Your task to perform on an android device: Open accessibility settings Image 0: 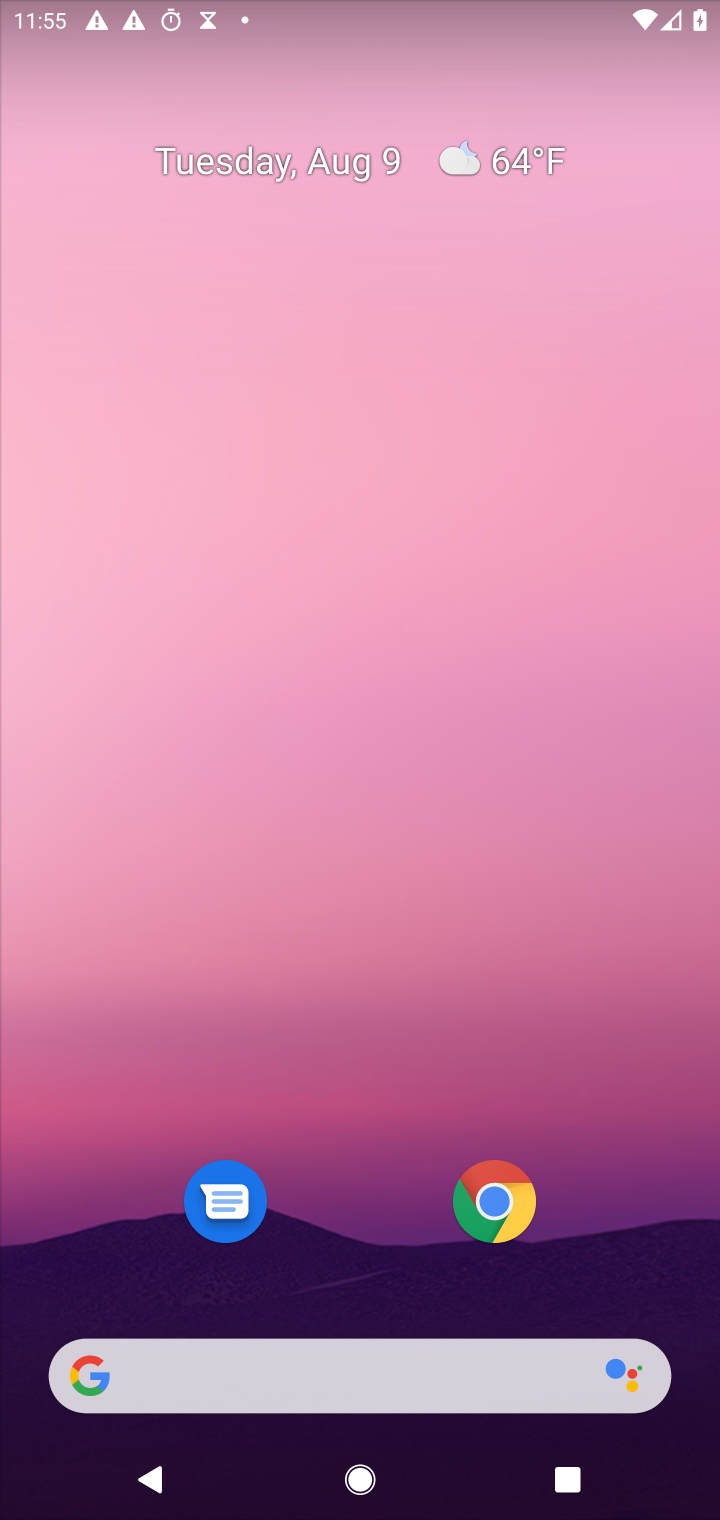
Step 0: press home button
Your task to perform on an android device: Open accessibility settings Image 1: 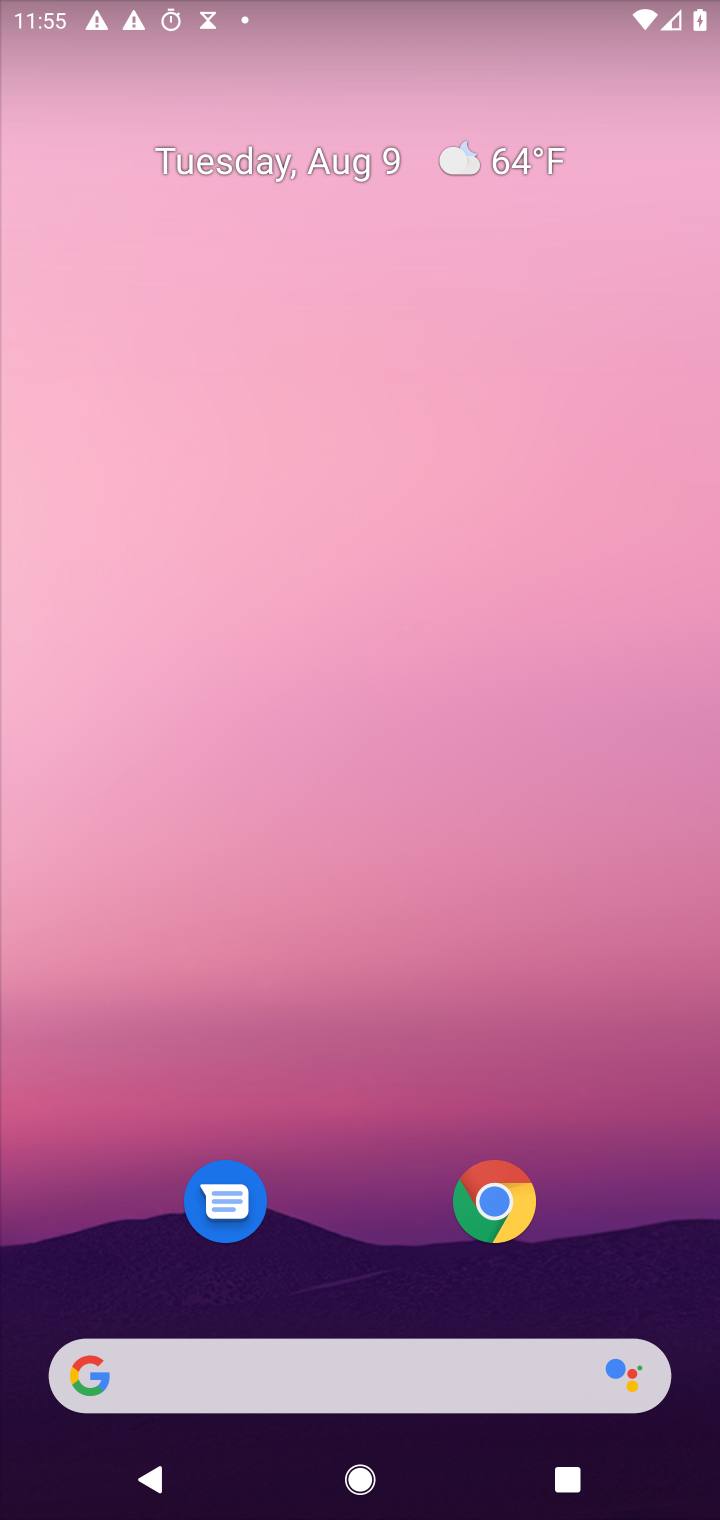
Step 1: drag from (342, 1241) to (331, 54)
Your task to perform on an android device: Open accessibility settings Image 2: 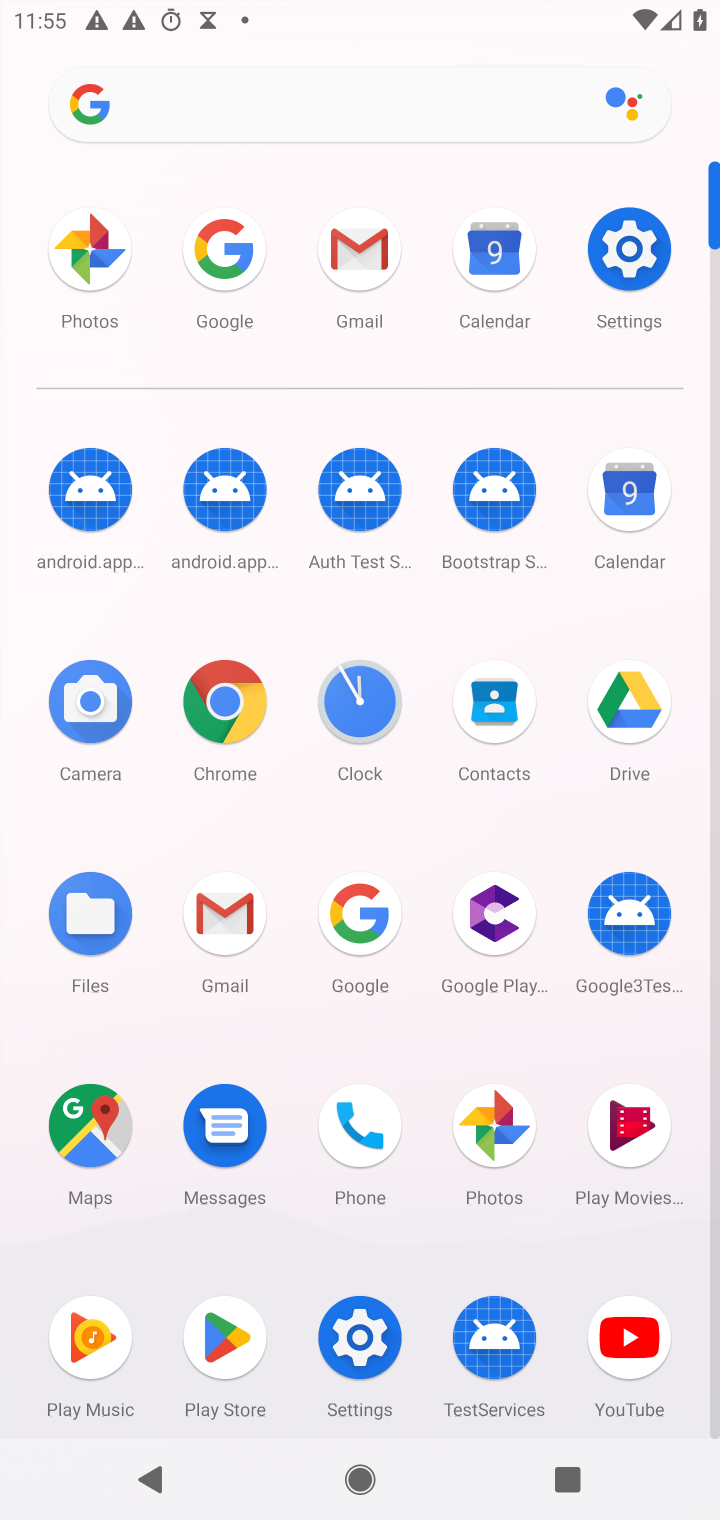
Step 2: click (631, 258)
Your task to perform on an android device: Open accessibility settings Image 3: 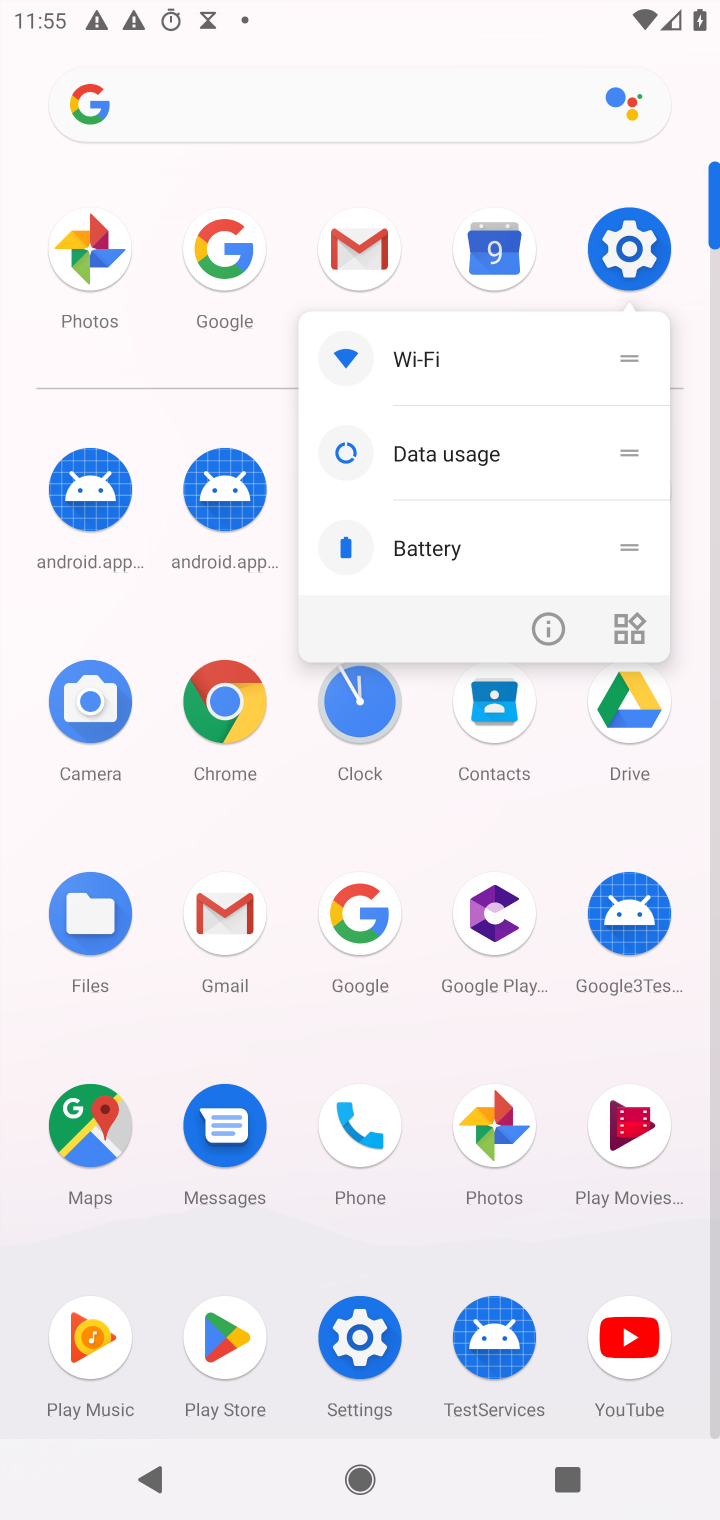
Step 3: click (631, 258)
Your task to perform on an android device: Open accessibility settings Image 4: 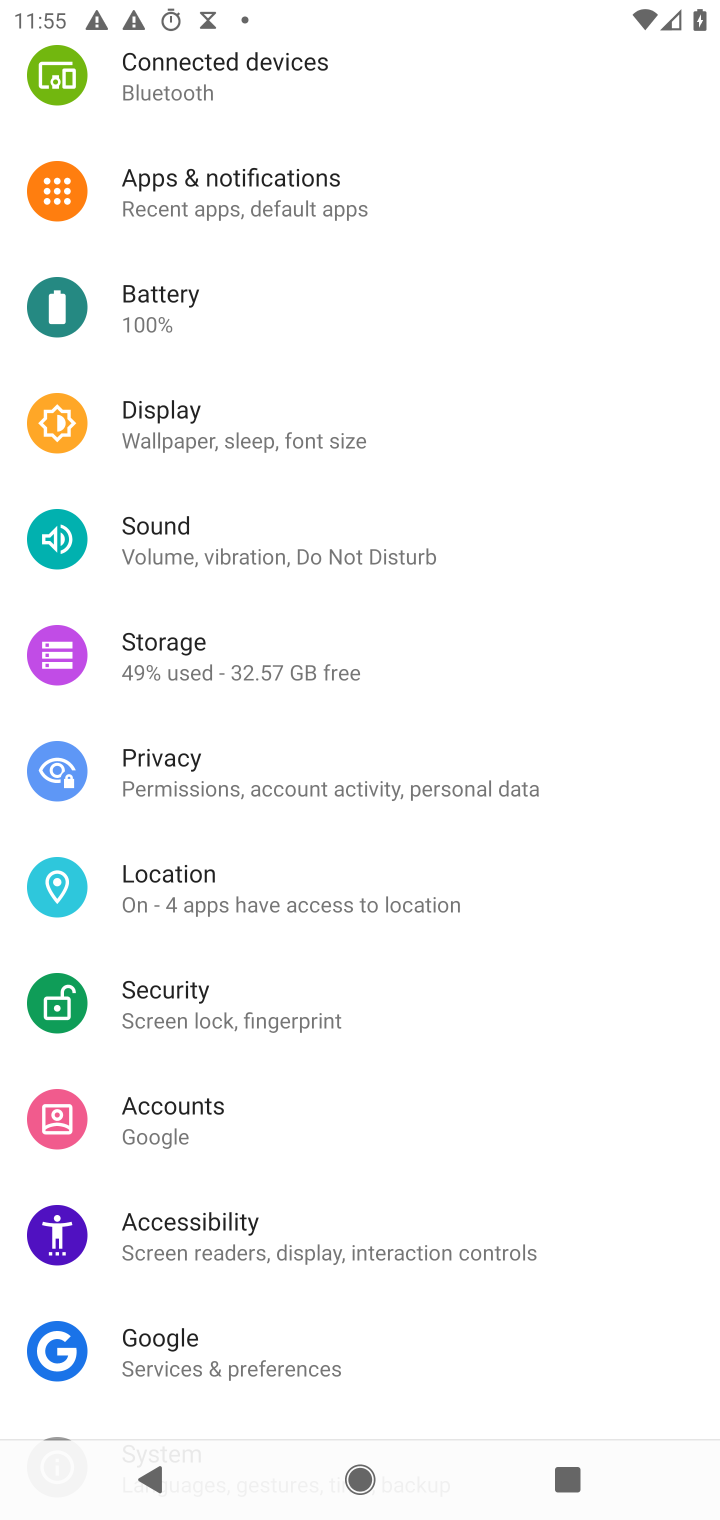
Step 4: click (202, 1235)
Your task to perform on an android device: Open accessibility settings Image 5: 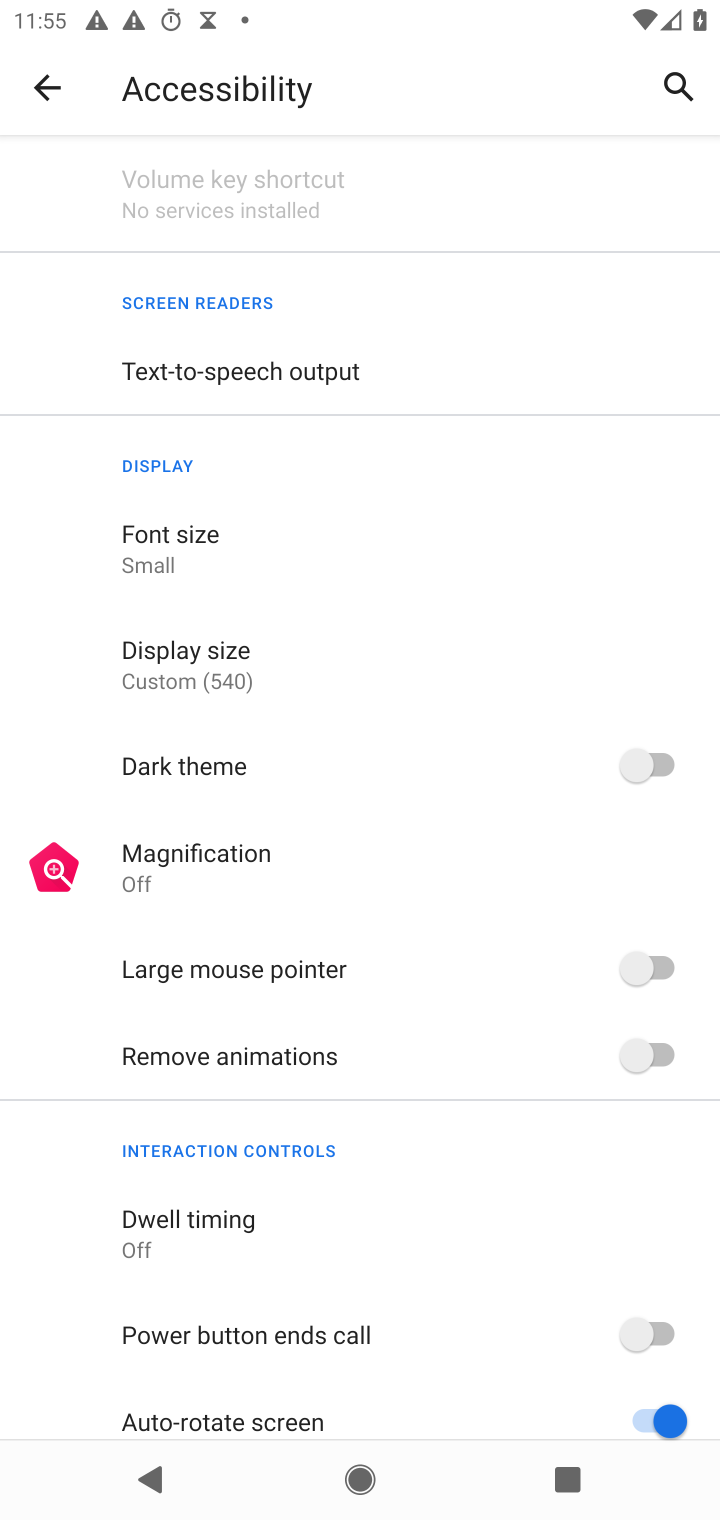
Step 5: task complete